Your task to perform on an android device: Open Google Chrome and click the shortcut for Amazon.com Image 0: 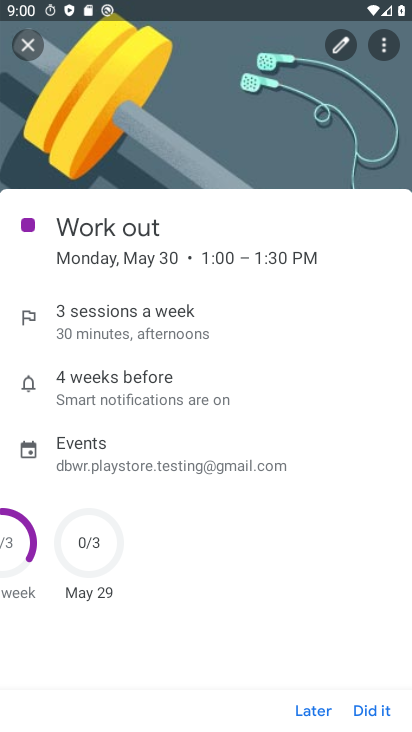
Step 0: press back button
Your task to perform on an android device: Open Google Chrome and click the shortcut for Amazon.com Image 1: 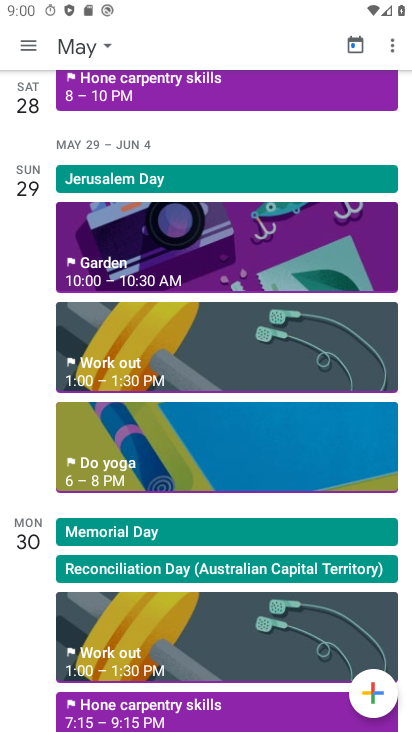
Step 1: press home button
Your task to perform on an android device: Open Google Chrome and click the shortcut for Amazon.com Image 2: 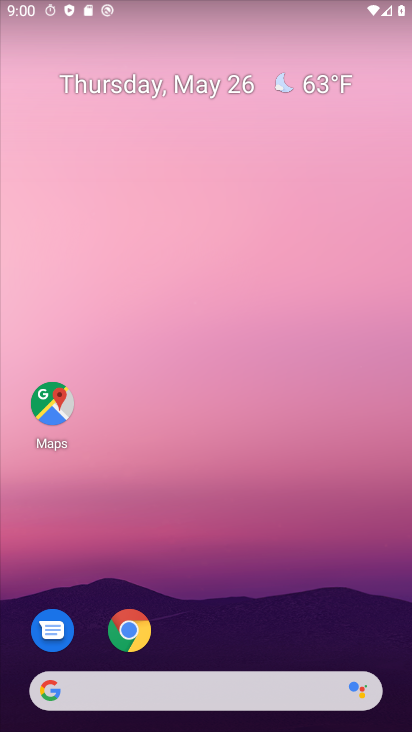
Step 2: drag from (299, 685) to (188, 116)
Your task to perform on an android device: Open Google Chrome and click the shortcut for Amazon.com Image 3: 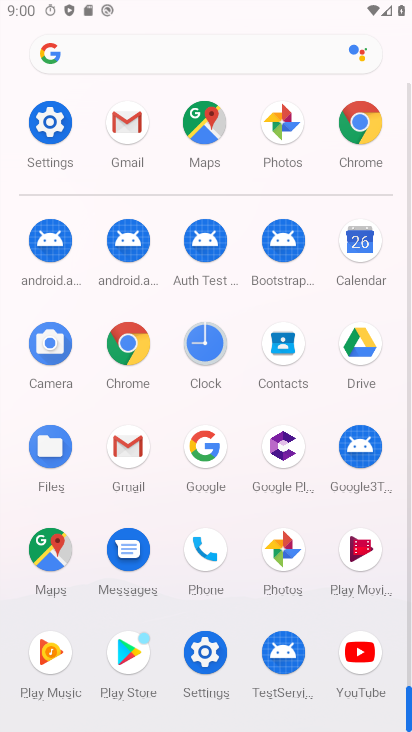
Step 3: drag from (272, 631) to (186, 92)
Your task to perform on an android device: Open Google Chrome and click the shortcut for Amazon.com Image 4: 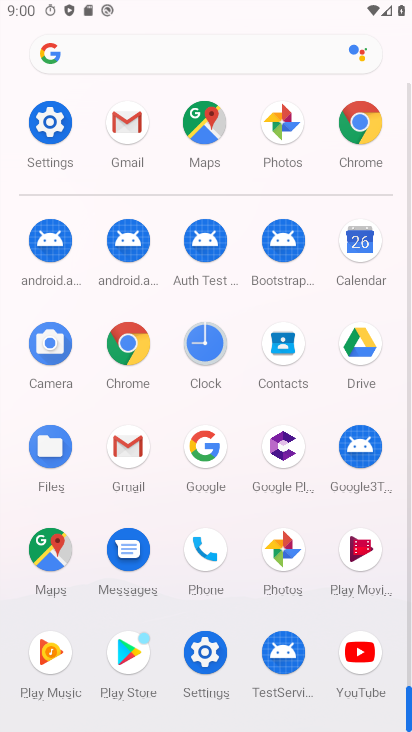
Step 4: click (125, 350)
Your task to perform on an android device: Open Google Chrome and click the shortcut for Amazon.com Image 5: 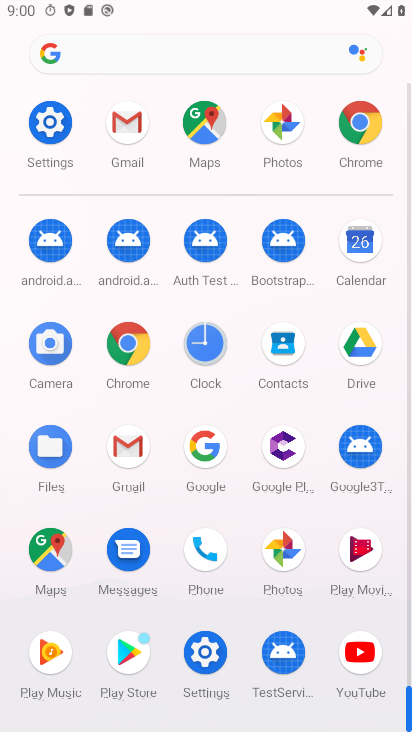
Step 5: click (125, 350)
Your task to perform on an android device: Open Google Chrome and click the shortcut for Amazon.com Image 6: 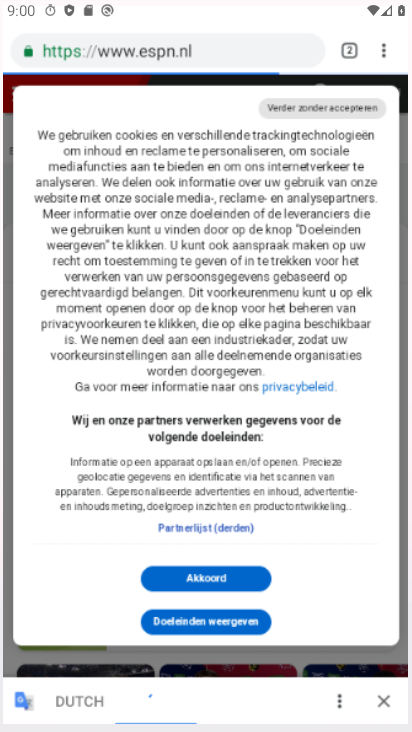
Step 6: click (111, 364)
Your task to perform on an android device: Open Google Chrome and click the shortcut for Amazon.com Image 7: 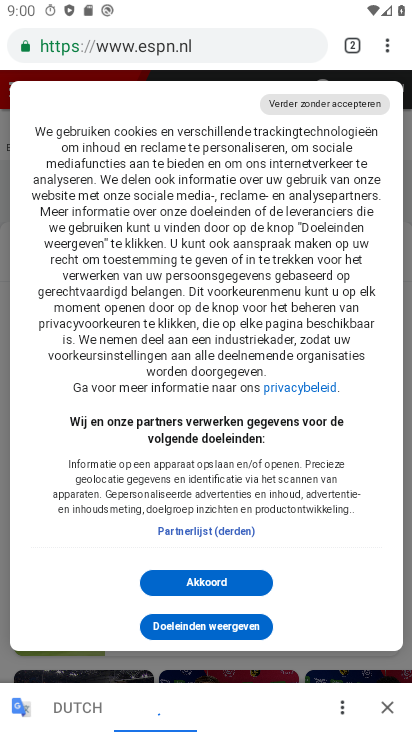
Step 7: click (231, 586)
Your task to perform on an android device: Open Google Chrome and click the shortcut for Amazon.com Image 8: 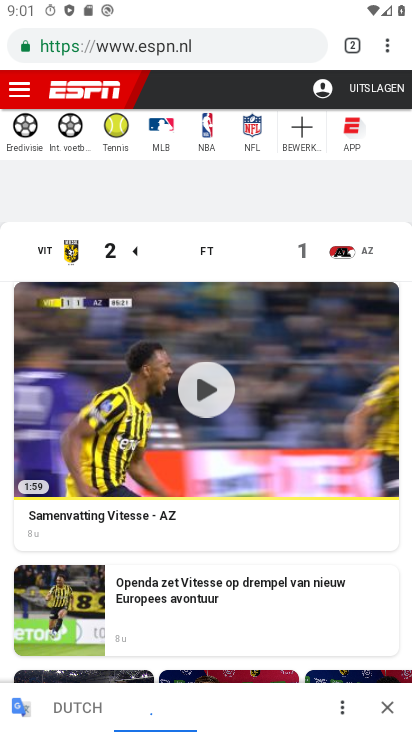
Step 8: drag from (381, 48) to (226, 95)
Your task to perform on an android device: Open Google Chrome and click the shortcut for Amazon.com Image 9: 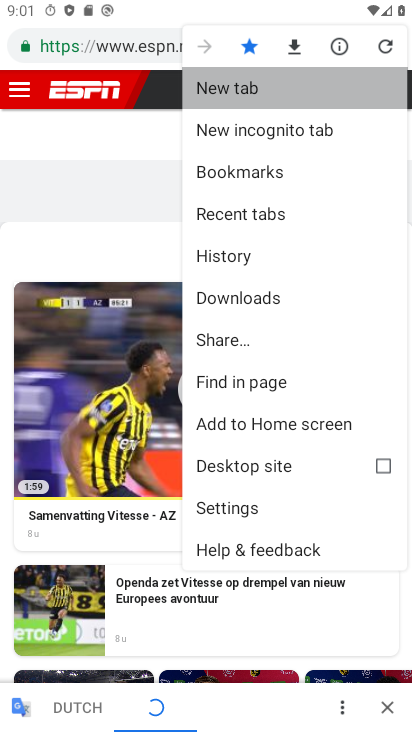
Step 9: click (227, 94)
Your task to perform on an android device: Open Google Chrome and click the shortcut for Amazon.com Image 10: 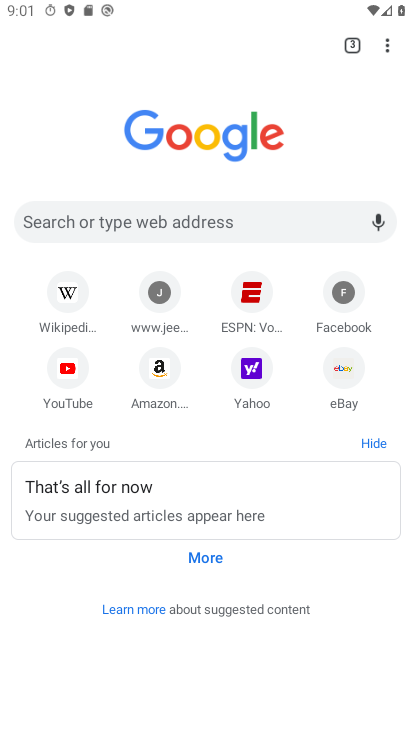
Step 10: click (167, 375)
Your task to perform on an android device: Open Google Chrome and click the shortcut for Amazon.com Image 11: 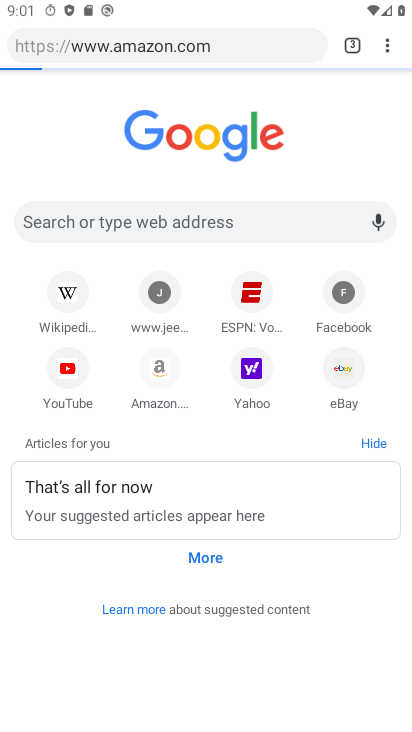
Step 11: click (167, 374)
Your task to perform on an android device: Open Google Chrome and click the shortcut for Amazon.com Image 12: 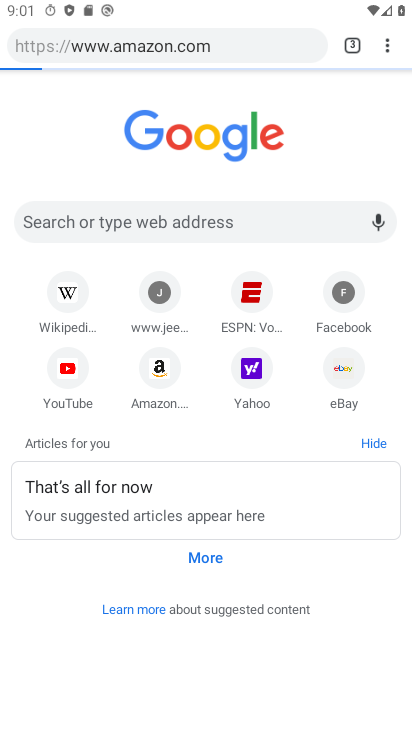
Step 12: click (167, 373)
Your task to perform on an android device: Open Google Chrome and click the shortcut for Amazon.com Image 13: 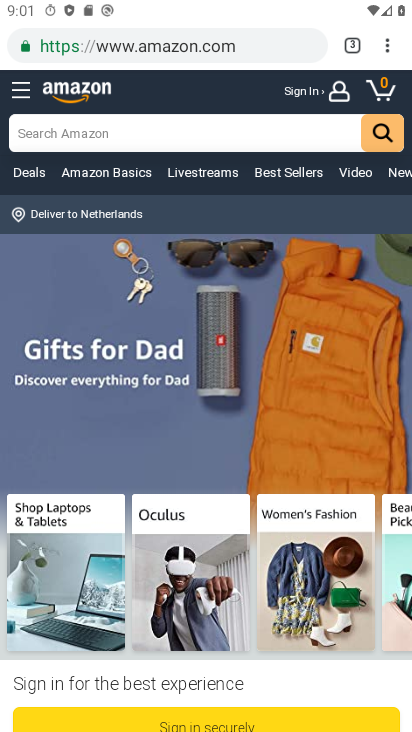
Step 13: task complete